Your task to perform on an android device: open a new tab in the chrome app Image 0: 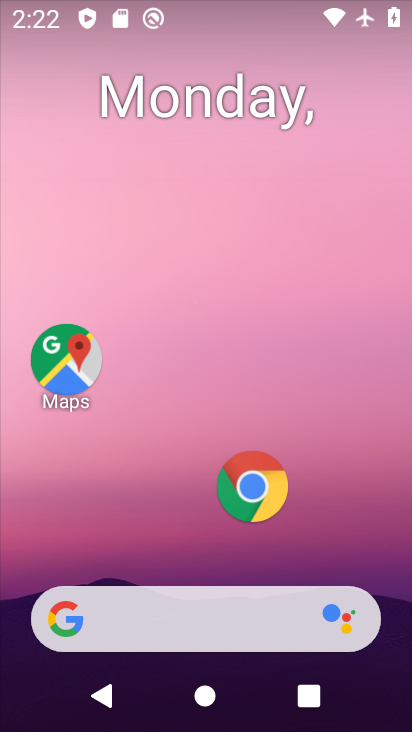
Step 0: click (257, 479)
Your task to perform on an android device: open a new tab in the chrome app Image 1: 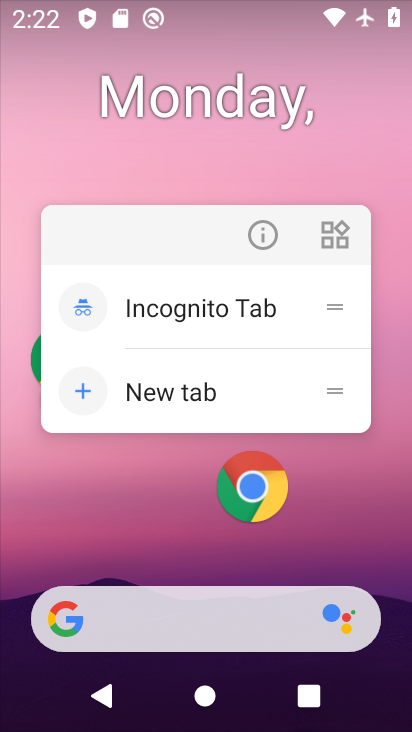
Step 1: click (242, 484)
Your task to perform on an android device: open a new tab in the chrome app Image 2: 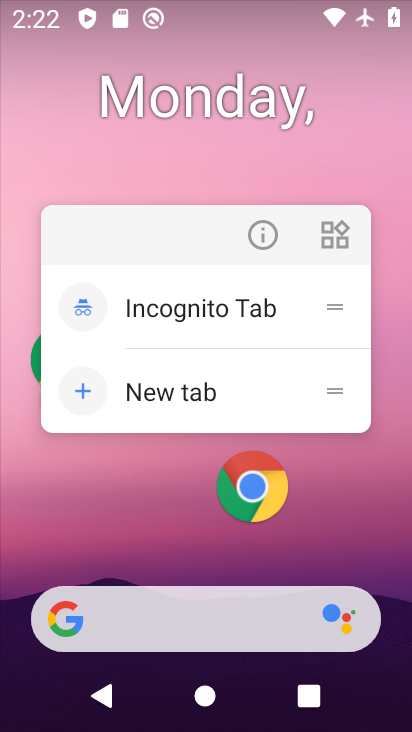
Step 2: click (248, 479)
Your task to perform on an android device: open a new tab in the chrome app Image 3: 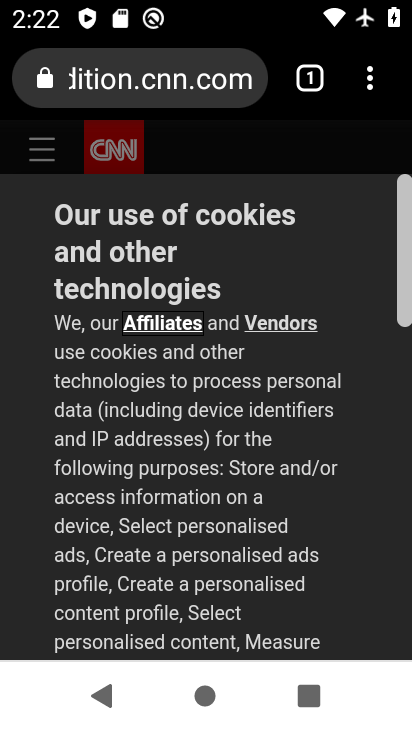
Step 3: click (378, 80)
Your task to perform on an android device: open a new tab in the chrome app Image 4: 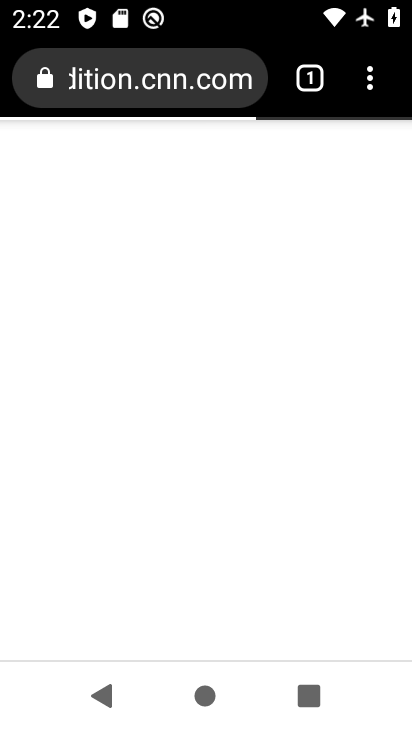
Step 4: click (372, 96)
Your task to perform on an android device: open a new tab in the chrome app Image 5: 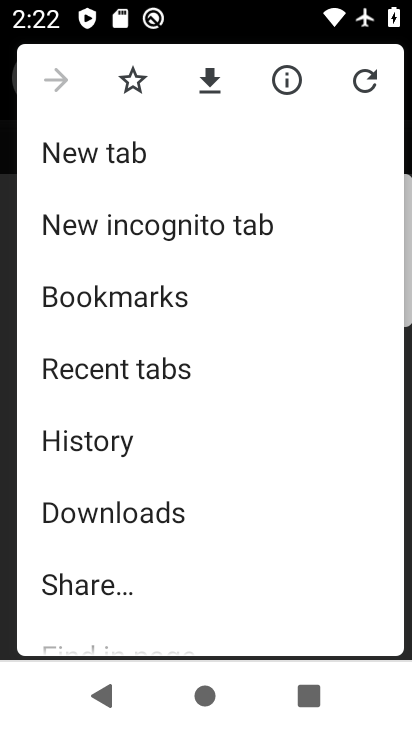
Step 5: click (84, 158)
Your task to perform on an android device: open a new tab in the chrome app Image 6: 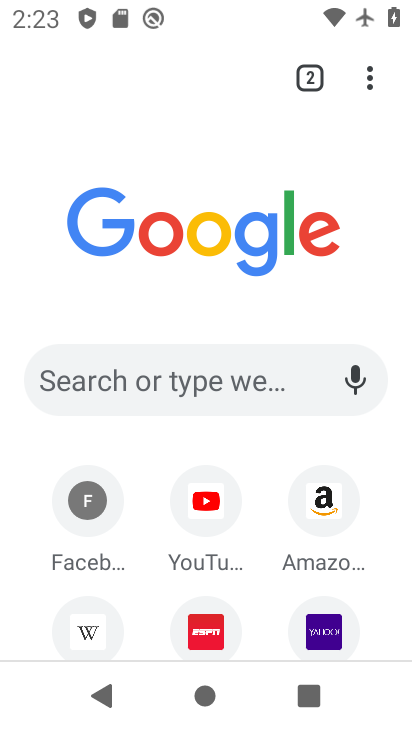
Step 6: task complete